Your task to perform on an android device: move a message to another label in the gmail app Image 0: 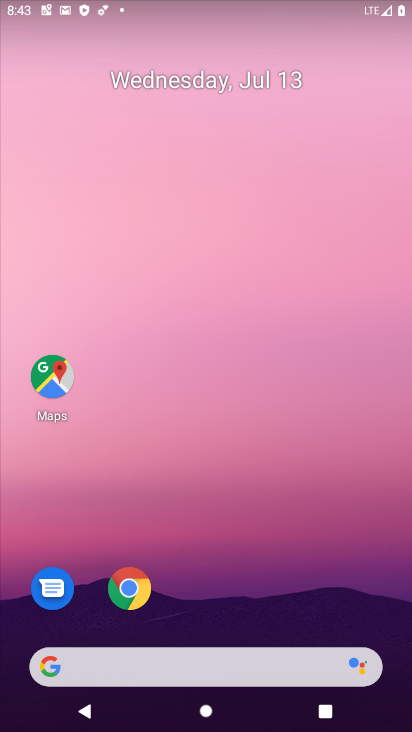
Step 0: drag from (273, 584) to (257, 203)
Your task to perform on an android device: move a message to another label in the gmail app Image 1: 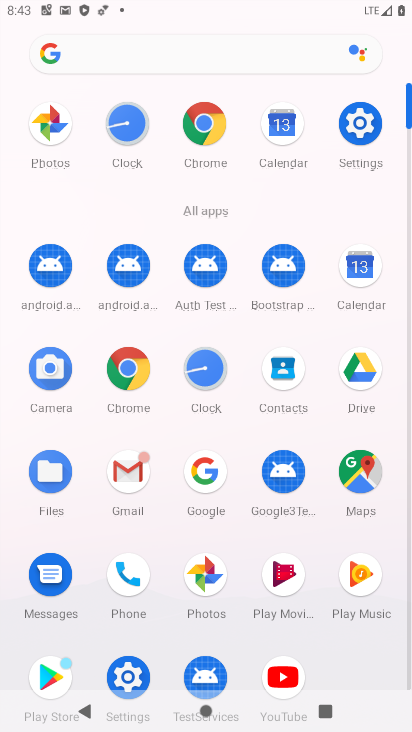
Step 1: click (130, 480)
Your task to perform on an android device: move a message to another label in the gmail app Image 2: 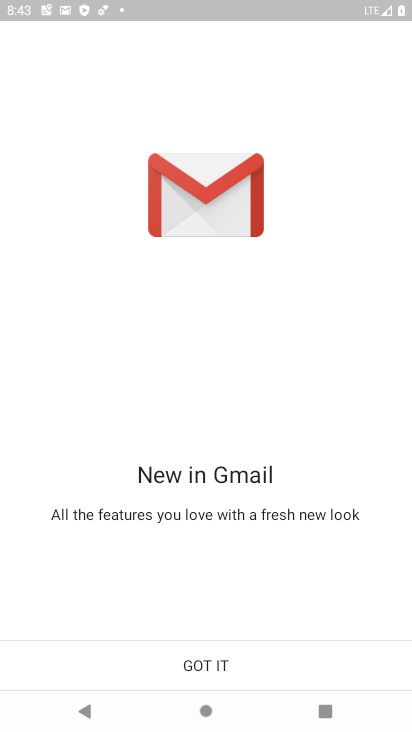
Step 2: click (203, 655)
Your task to perform on an android device: move a message to another label in the gmail app Image 3: 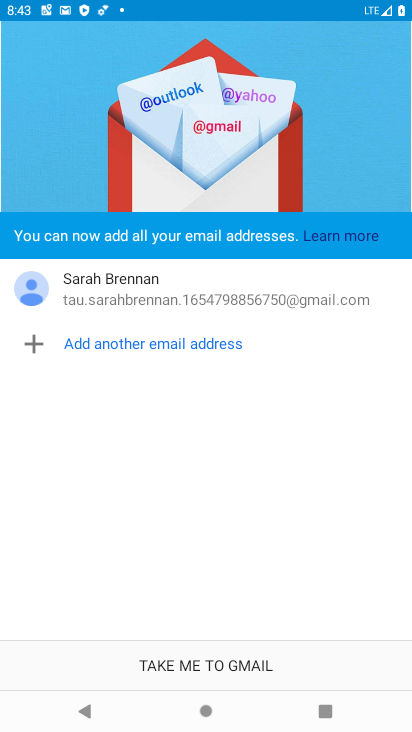
Step 3: click (203, 655)
Your task to perform on an android device: move a message to another label in the gmail app Image 4: 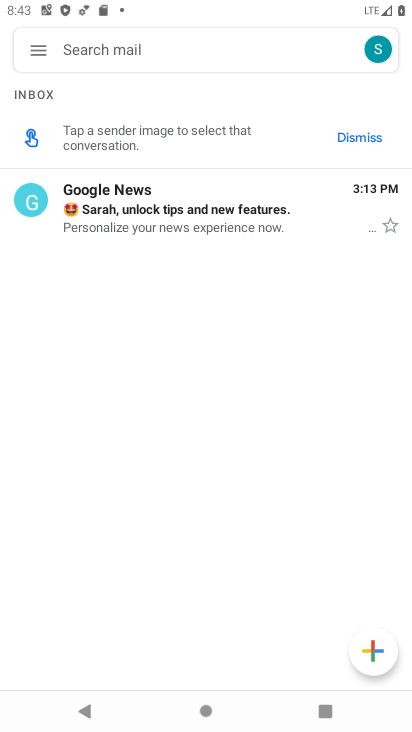
Step 4: click (108, 214)
Your task to perform on an android device: move a message to another label in the gmail app Image 5: 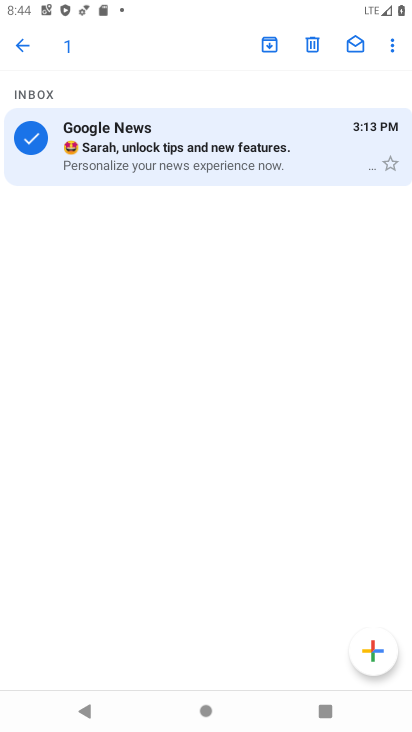
Step 5: click (392, 43)
Your task to perform on an android device: move a message to another label in the gmail app Image 6: 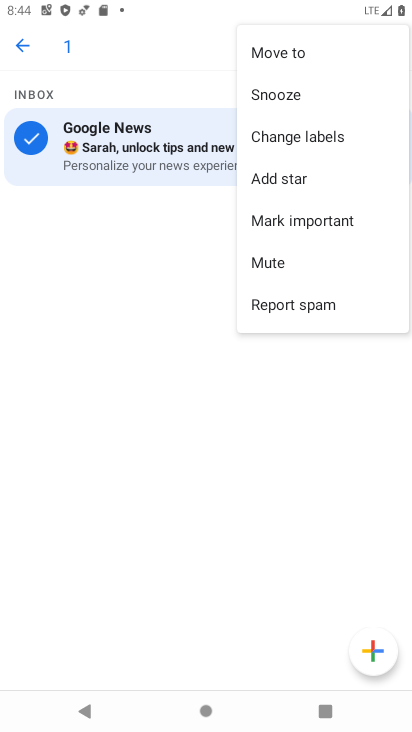
Step 6: click (312, 42)
Your task to perform on an android device: move a message to another label in the gmail app Image 7: 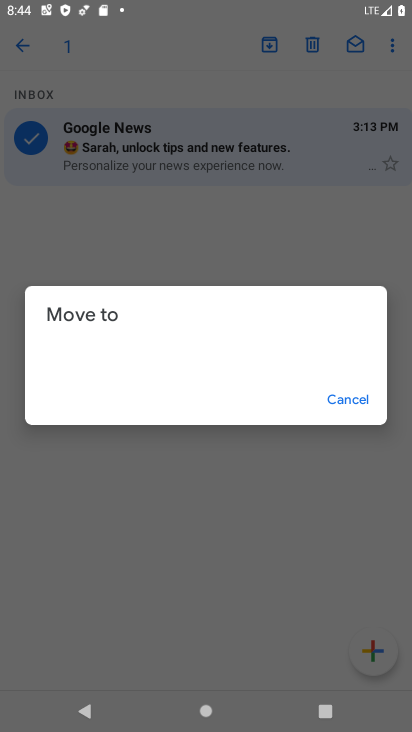
Step 7: task complete